Your task to perform on an android device: toggle translation in the chrome app Image 0: 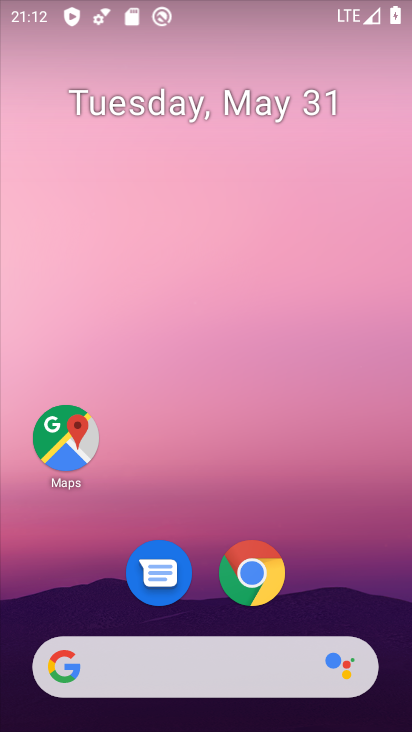
Step 0: click (256, 574)
Your task to perform on an android device: toggle translation in the chrome app Image 1: 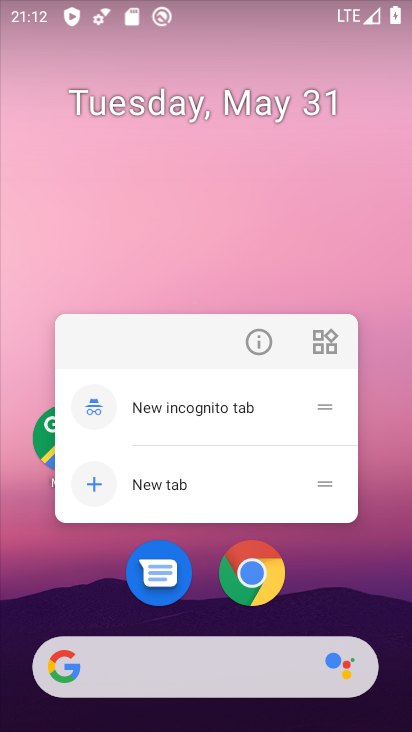
Step 1: click (256, 572)
Your task to perform on an android device: toggle translation in the chrome app Image 2: 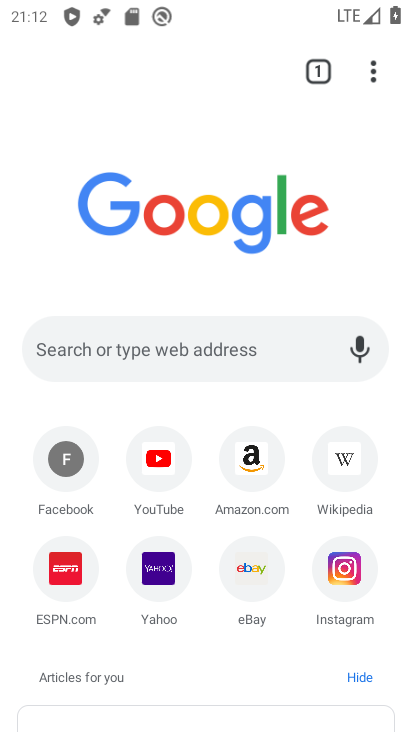
Step 2: drag from (376, 69) to (210, 613)
Your task to perform on an android device: toggle translation in the chrome app Image 3: 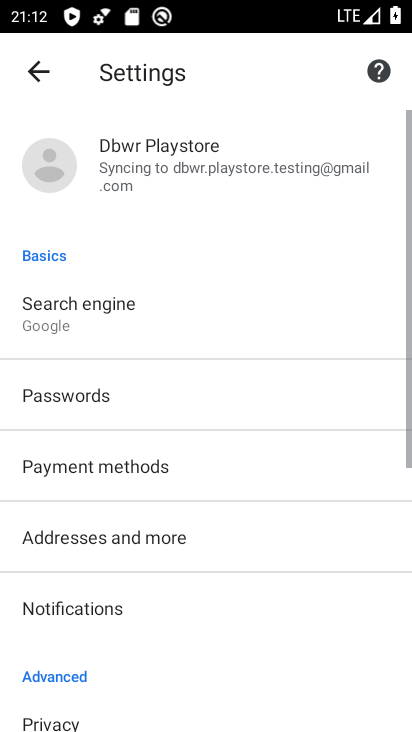
Step 3: drag from (212, 606) to (302, 148)
Your task to perform on an android device: toggle translation in the chrome app Image 4: 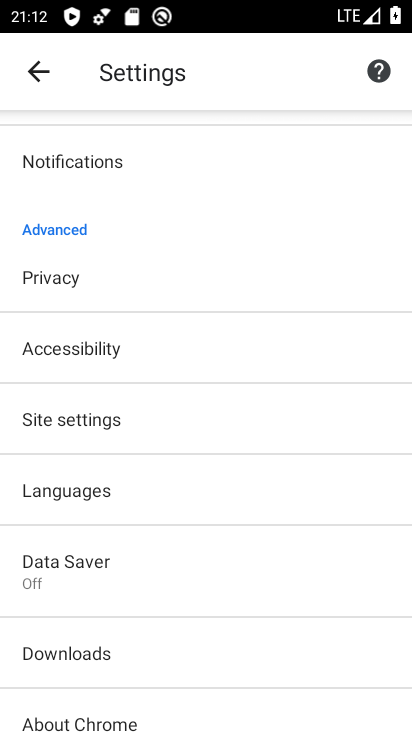
Step 4: click (96, 495)
Your task to perform on an android device: toggle translation in the chrome app Image 5: 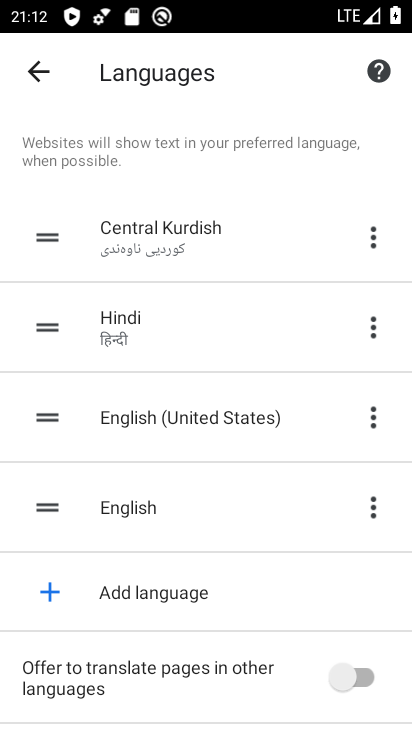
Step 5: click (360, 666)
Your task to perform on an android device: toggle translation in the chrome app Image 6: 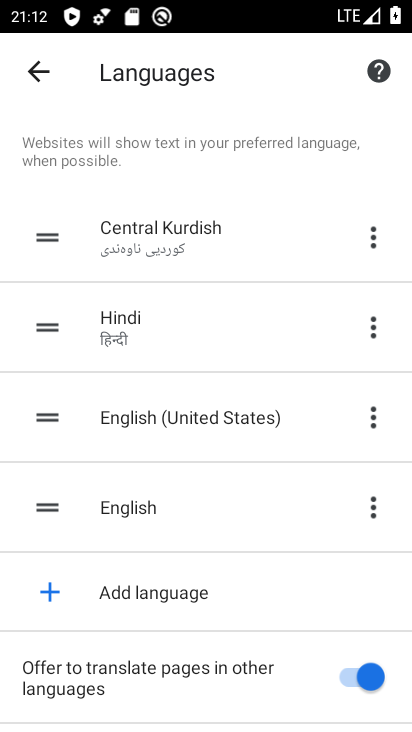
Step 6: task complete